Your task to perform on an android device: Is it going to rain this weekend? Image 0: 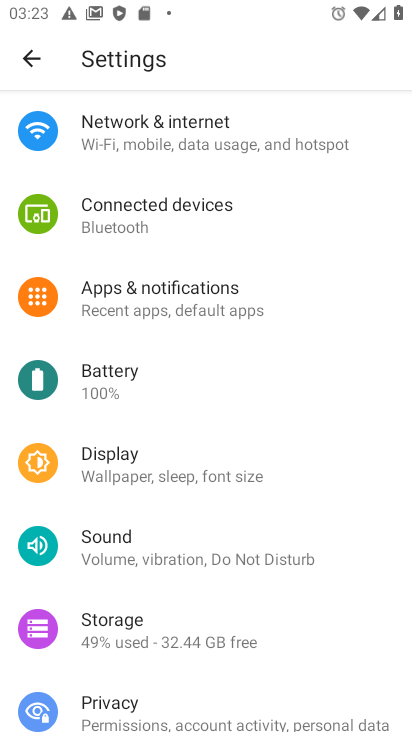
Step 0: press home button
Your task to perform on an android device: Is it going to rain this weekend? Image 1: 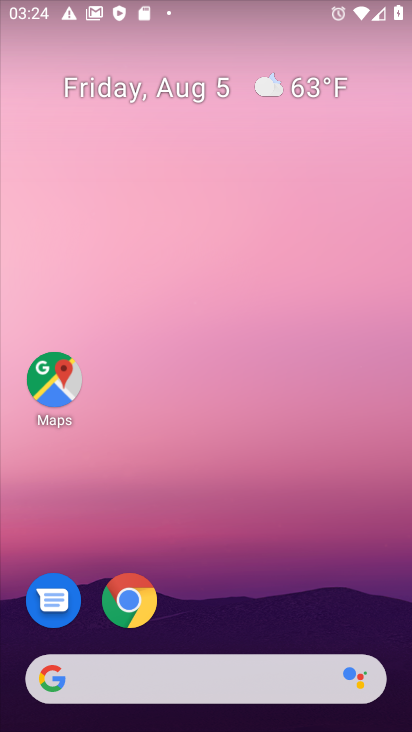
Step 1: drag from (210, 693) to (223, 254)
Your task to perform on an android device: Is it going to rain this weekend? Image 2: 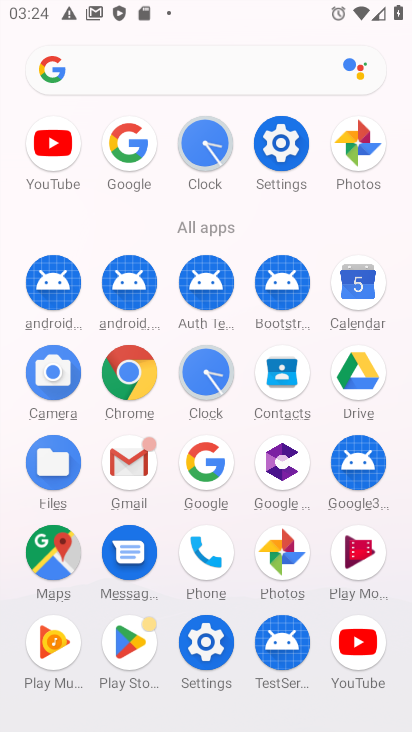
Step 2: click (128, 143)
Your task to perform on an android device: Is it going to rain this weekend? Image 3: 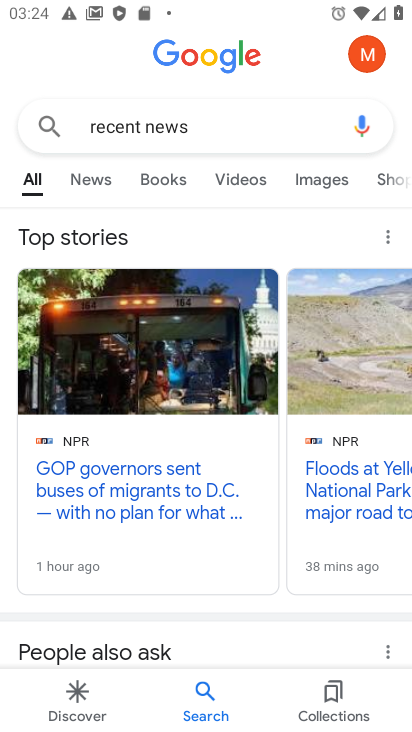
Step 3: click (205, 130)
Your task to perform on an android device: Is it going to rain this weekend? Image 4: 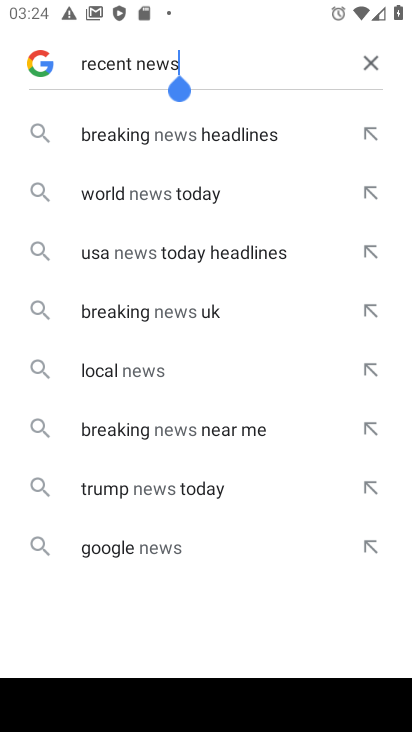
Step 4: click (370, 64)
Your task to perform on an android device: Is it going to rain this weekend? Image 5: 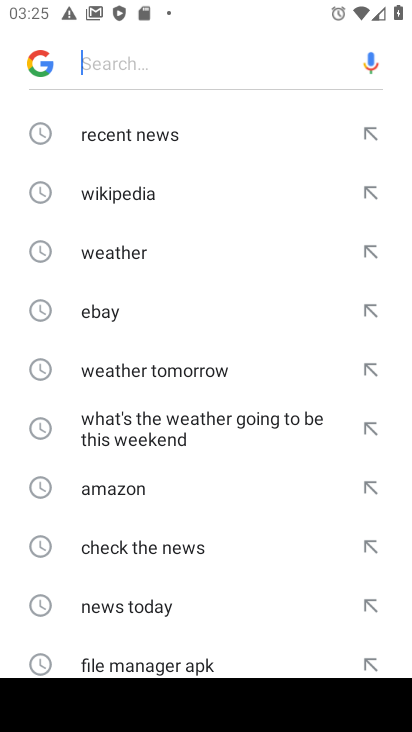
Step 5: type "Is it going to rain this weekend?"
Your task to perform on an android device: Is it going to rain this weekend? Image 6: 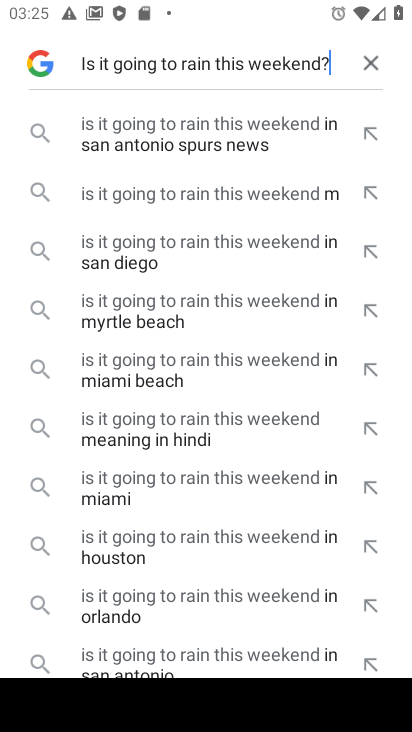
Step 6: click (186, 191)
Your task to perform on an android device: Is it going to rain this weekend? Image 7: 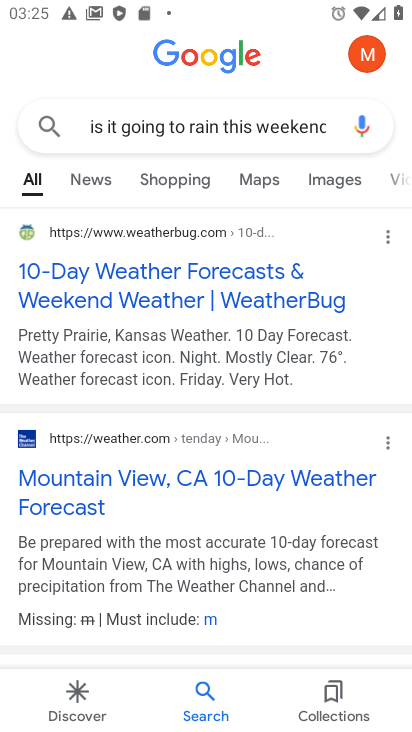
Step 7: click (184, 282)
Your task to perform on an android device: Is it going to rain this weekend? Image 8: 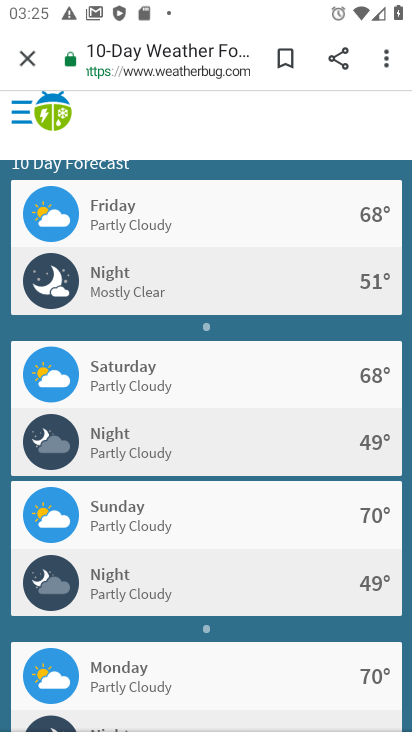
Step 8: task complete